Your task to perform on an android device: Open my contact list Image 0: 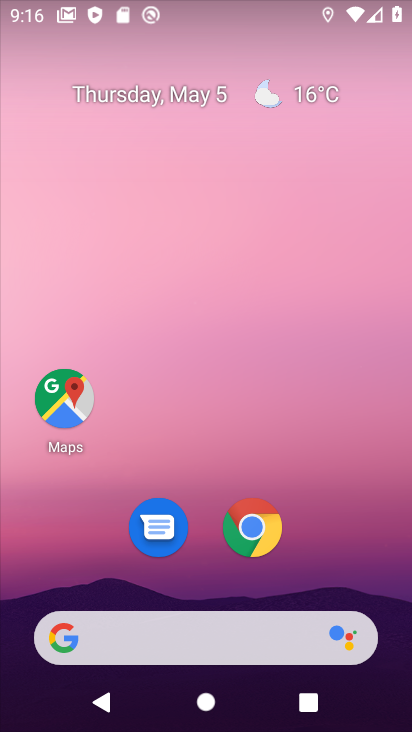
Step 0: drag from (76, 610) to (176, 104)
Your task to perform on an android device: Open my contact list Image 1: 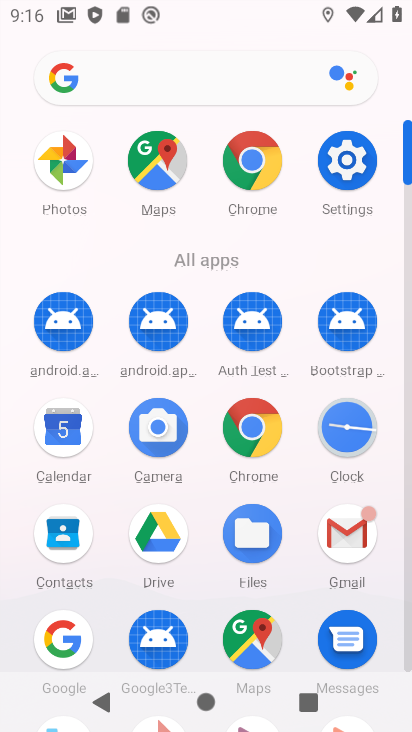
Step 1: click (51, 542)
Your task to perform on an android device: Open my contact list Image 2: 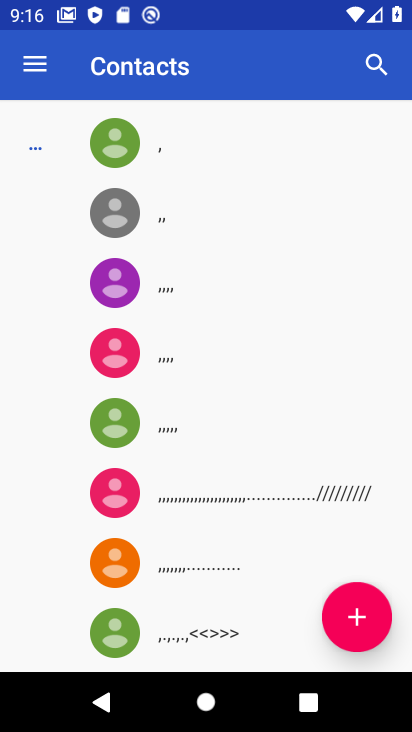
Step 2: task complete